Your task to perform on an android device: Go to battery settings Image 0: 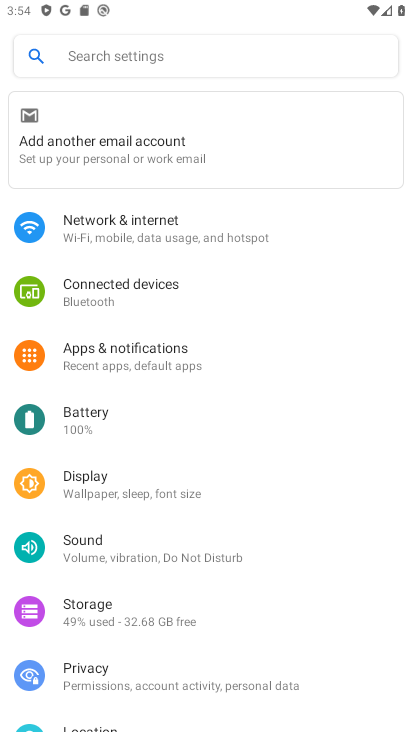
Step 0: drag from (186, 607) to (184, 200)
Your task to perform on an android device: Go to battery settings Image 1: 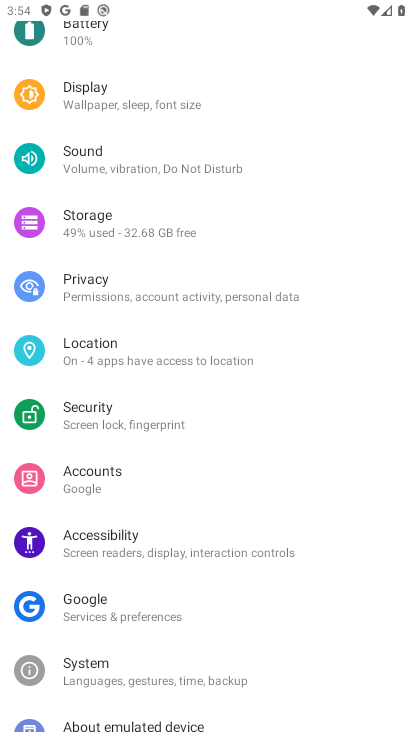
Step 1: click (126, 36)
Your task to perform on an android device: Go to battery settings Image 2: 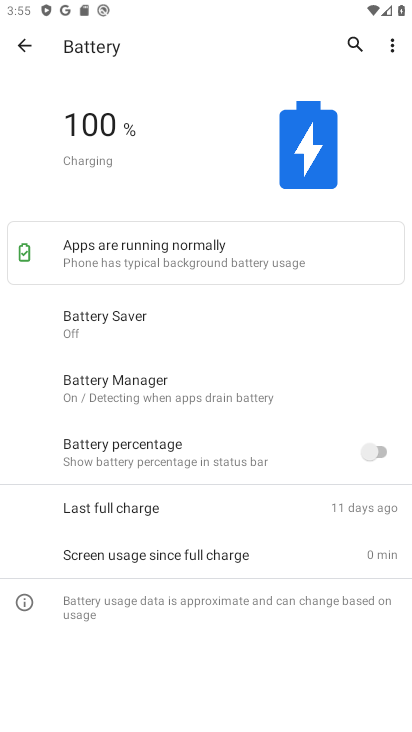
Step 2: task complete